Your task to perform on an android device: Go to display settings Image 0: 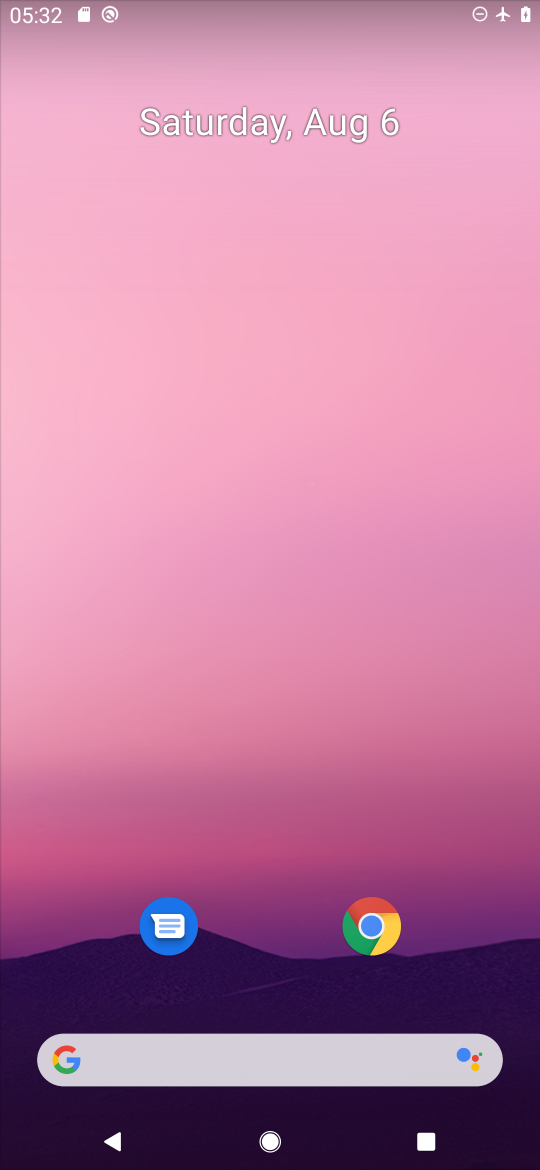
Step 0: drag from (278, 929) to (290, 301)
Your task to perform on an android device: Go to display settings Image 1: 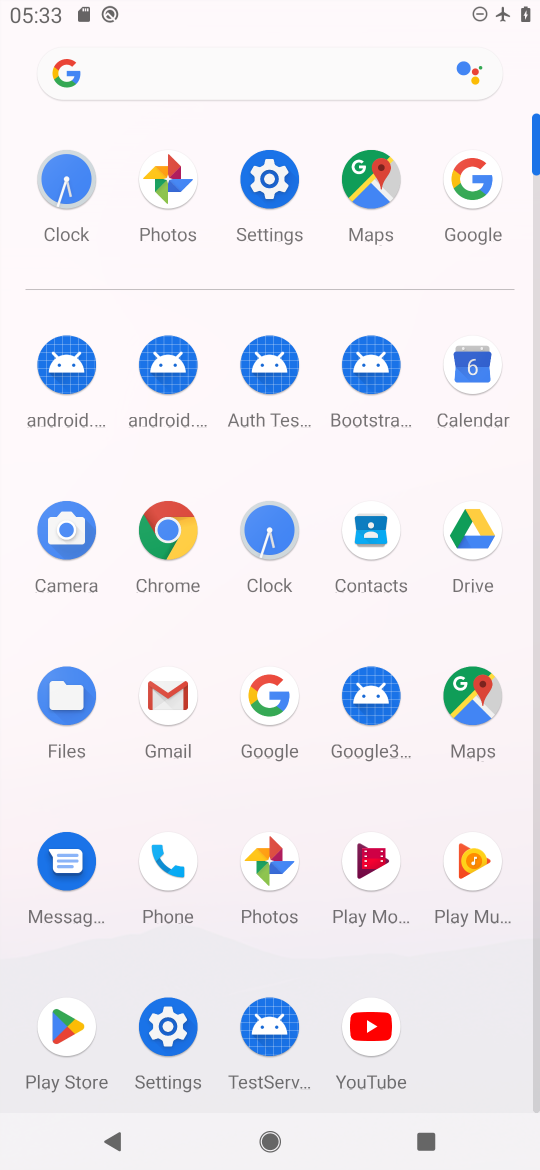
Step 1: click (253, 194)
Your task to perform on an android device: Go to display settings Image 2: 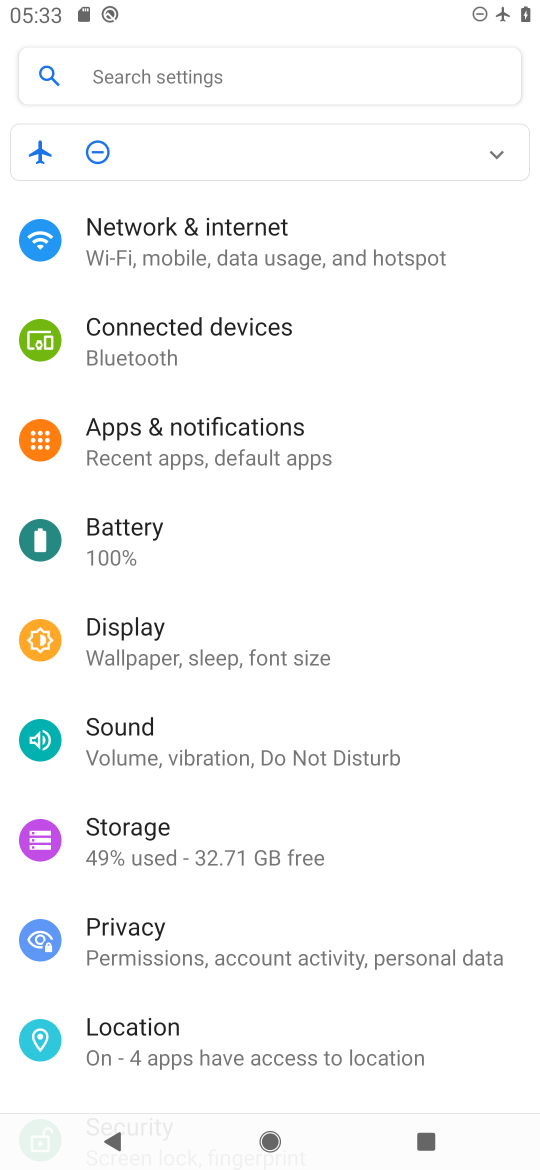
Step 2: click (167, 648)
Your task to perform on an android device: Go to display settings Image 3: 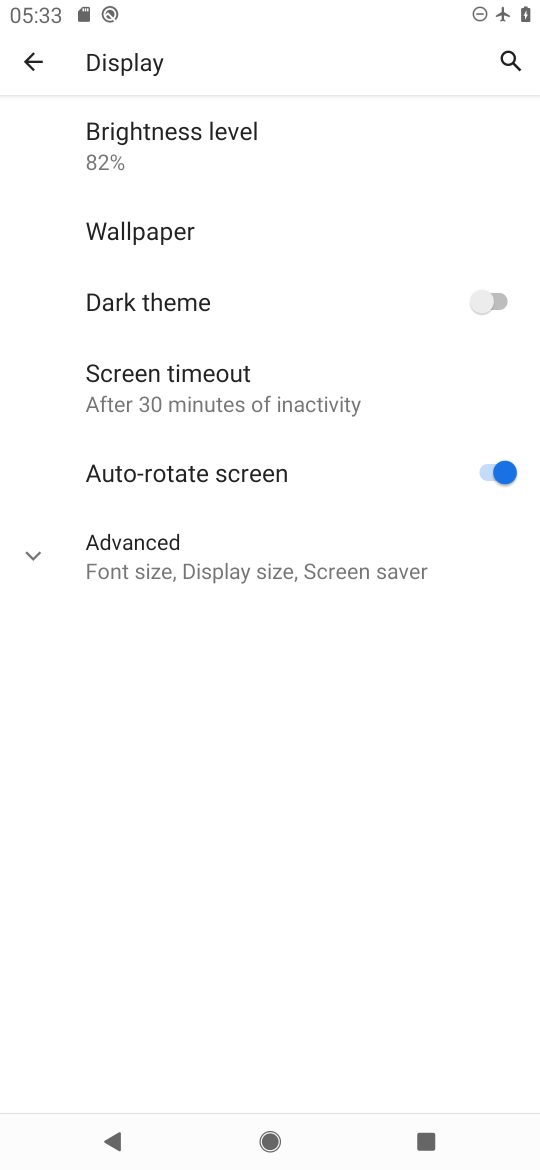
Step 3: task complete